Your task to perform on an android device: Show me productivity apps on the Play Store Image 0: 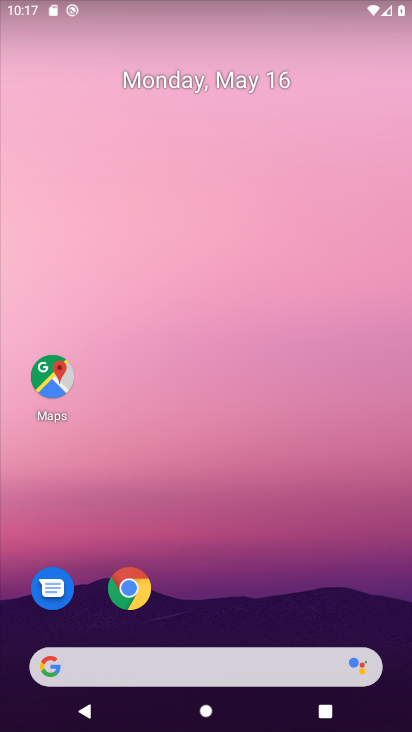
Step 0: drag from (249, 598) to (255, 69)
Your task to perform on an android device: Show me productivity apps on the Play Store Image 1: 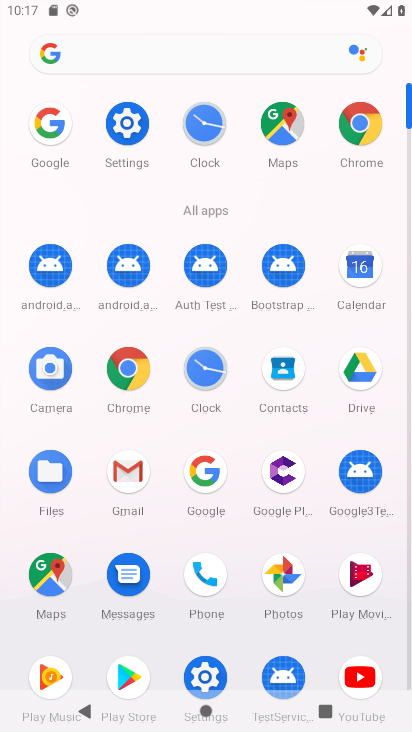
Step 1: click (130, 660)
Your task to perform on an android device: Show me productivity apps on the Play Store Image 2: 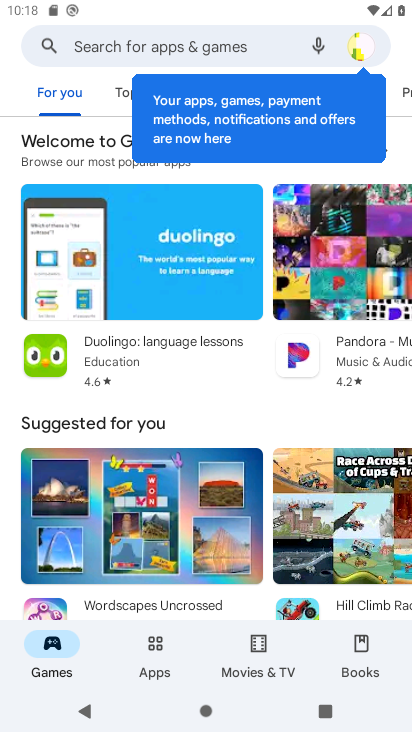
Step 2: click (154, 654)
Your task to perform on an android device: Show me productivity apps on the Play Store Image 3: 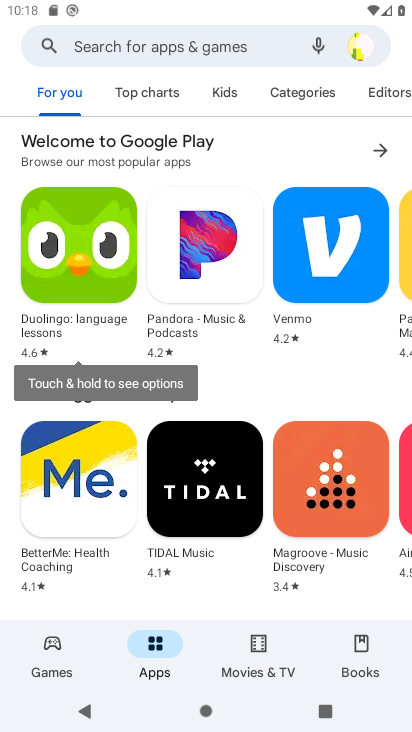
Step 3: click (318, 99)
Your task to perform on an android device: Show me productivity apps on the Play Store Image 4: 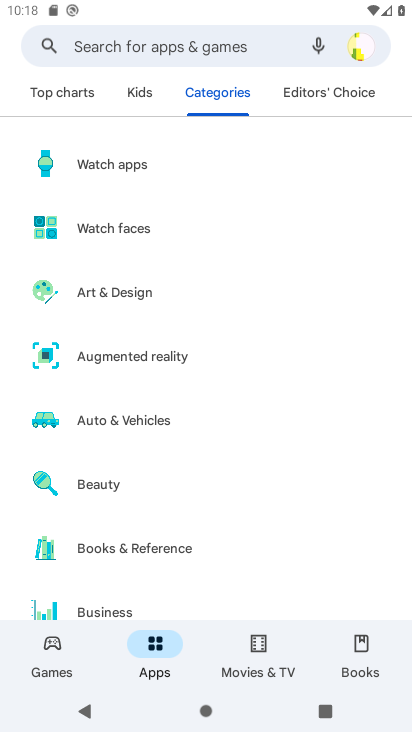
Step 4: drag from (186, 563) to (163, 66)
Your task to perform on an android device: Show me productivity apps on the Play Store Image 5: 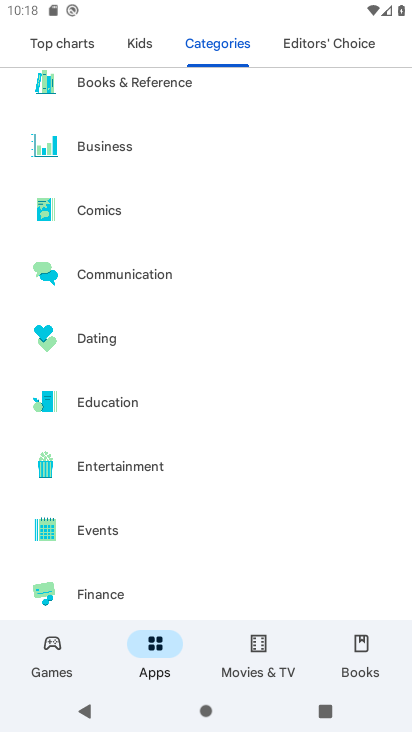
Step 5: drag from (194, 590) to (196, 2)
Your task to perform on an android device: Show me productivity apps on the Play Store Image 6: 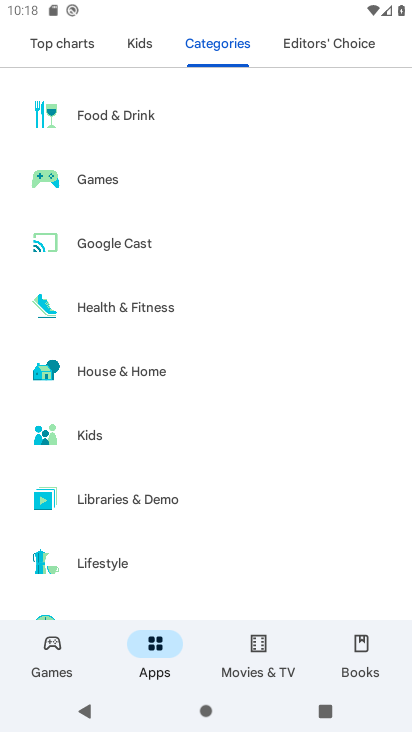
Step 6: drag from (175, 558) to (205, 1)
Your task to perform on an android device: Show me productivity apps on the Play Store Image 7: 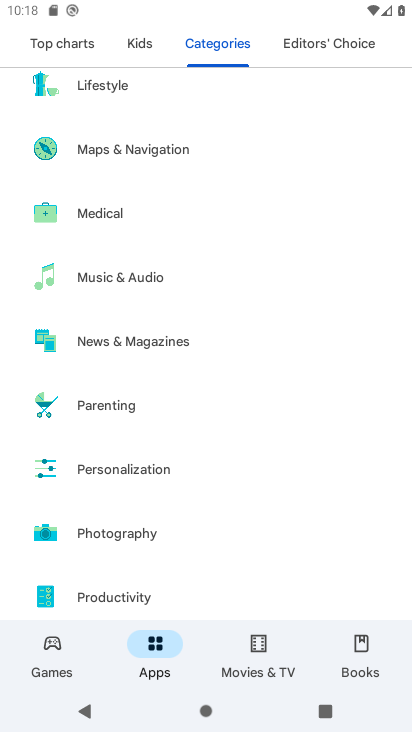
Step 7: click (143, 593)
Your task to perform on an android device: Show me productivity apps on the Play Store Image 8: 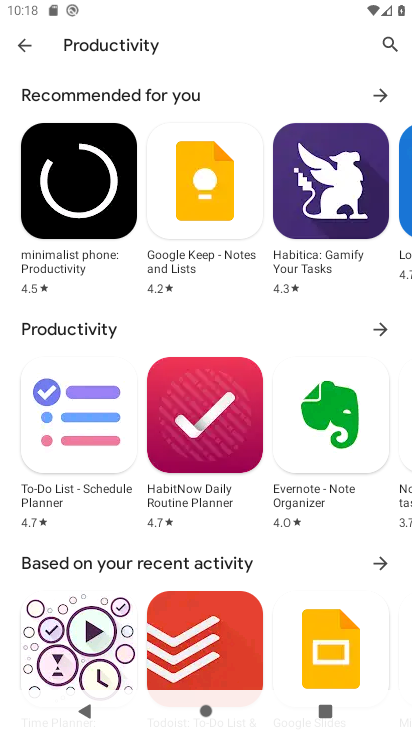
Step 8: task complete